Your task to perform on an android device: Open location settings Image 0: 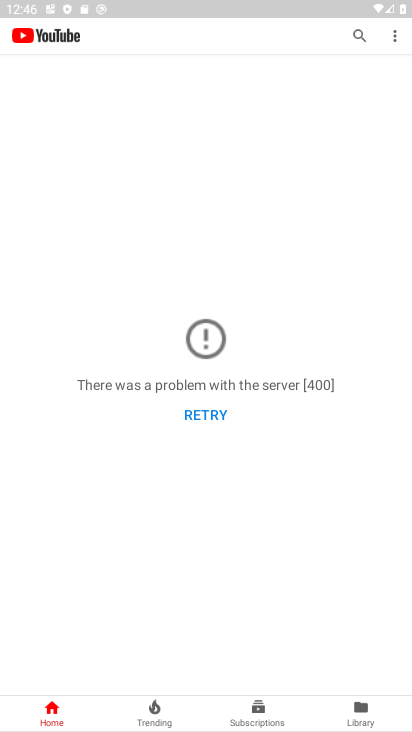
Step 0: press home button
Your task to perform on an android device: Open location settings Image 1: 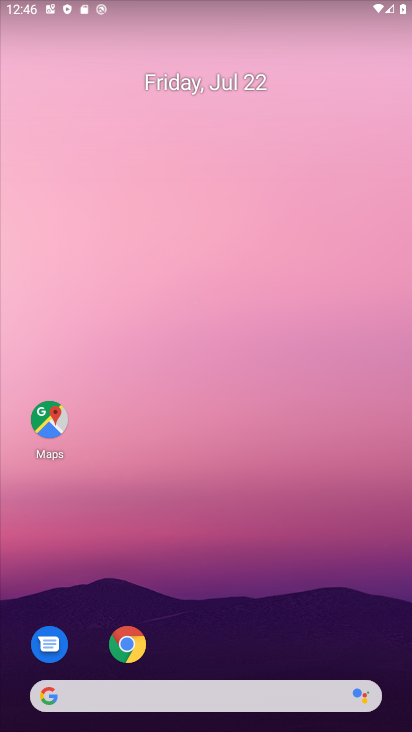
Step 1: drag from (212, 661) to (215, 53)
Your task to perform on an android device: Open location settings Image 2: 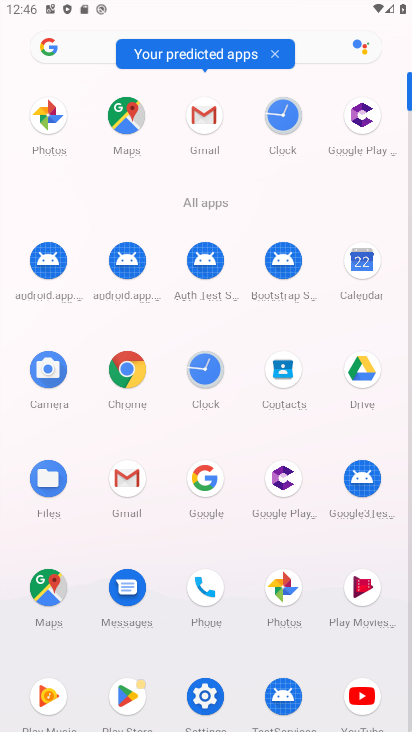
Step 2: click (201, 688)
Your task to perform on an android device: Open location settings Image 3: 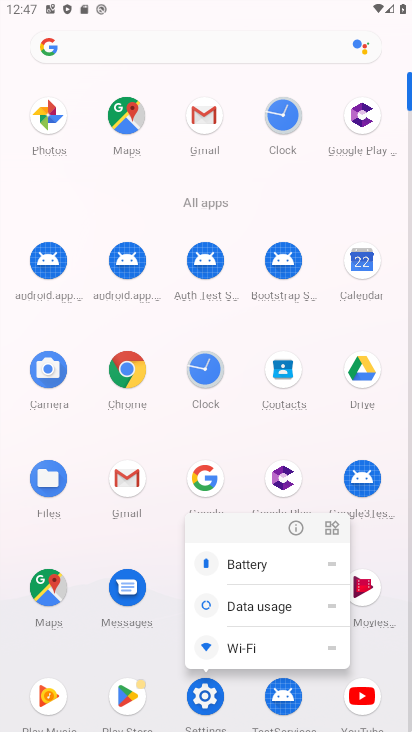
Step 3: click (203, 687)
Your task to perform on an android device: Open location settings Image 4: 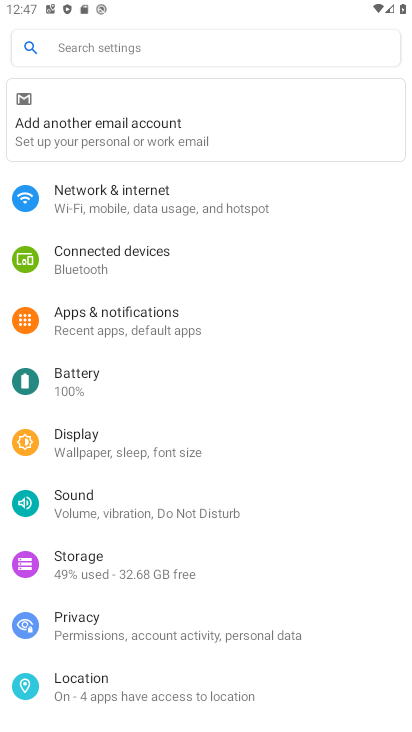
Step 4: click (125, 677)
Your task to perform on an android device: Open location settings Image 5: 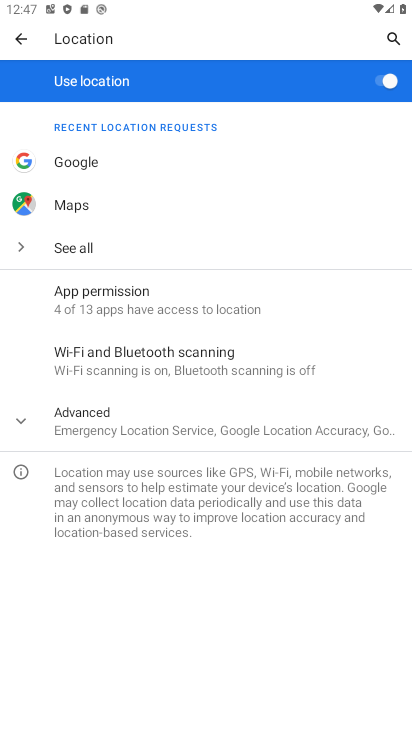
Step 5: click (43, 421)
Your task to perform on an android device: Open location settings Image 6: 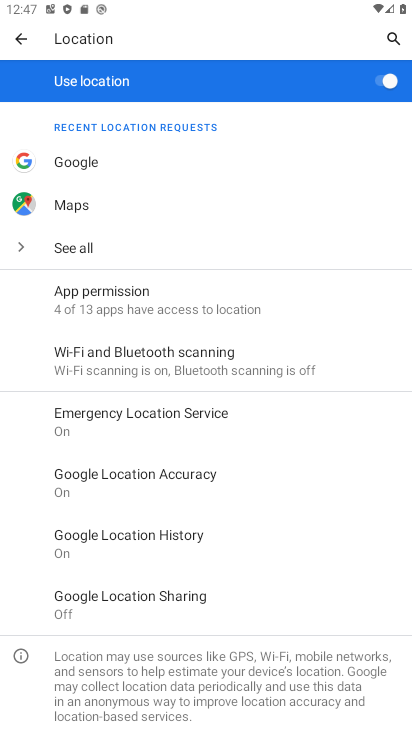
Step 6: task complete